Your task to perform on an android device: turn off location history Image 0: 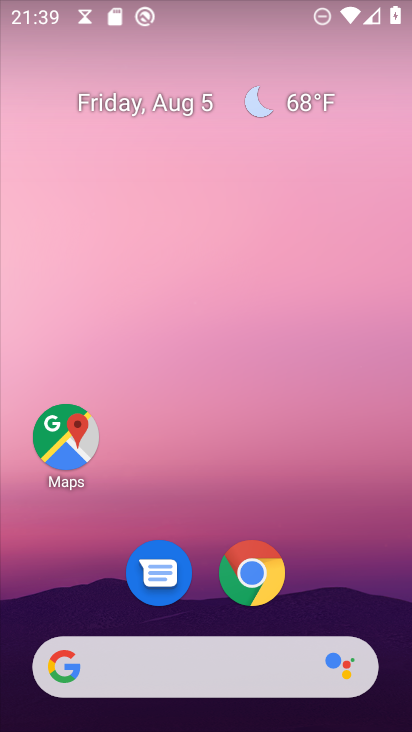
Step 0: drag from (138, 675) to (207, 128)
Your task to perform on an android device: turn off location history Image 1: 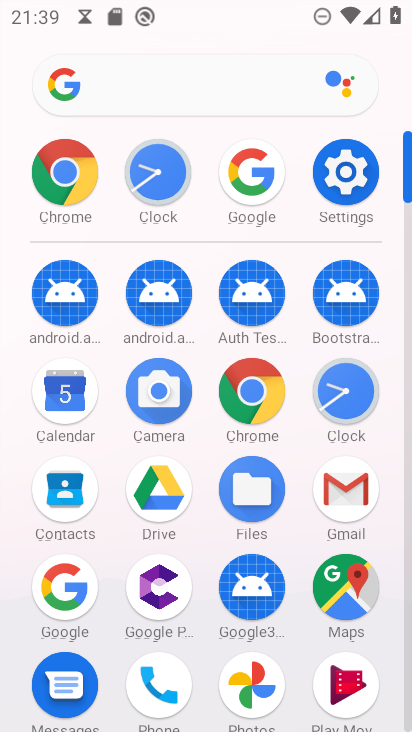
Step 1: click (346, 170)
Your task to perform on an android device: turn off location history Image 2: 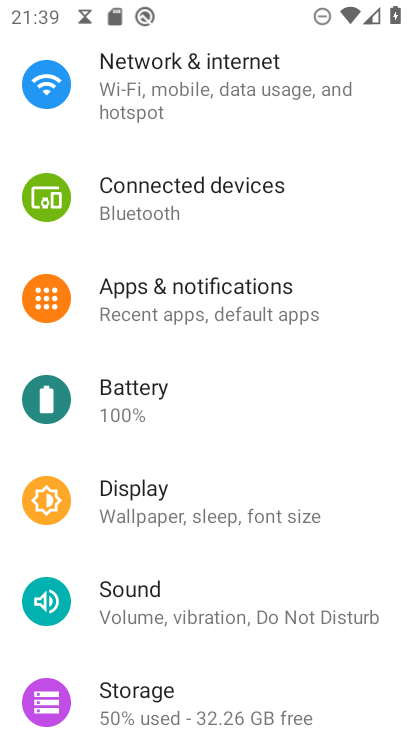
Step 2: drag from (228, 437) to (308, 313)
Your task to perform on an android device: turn off location history Image 3: 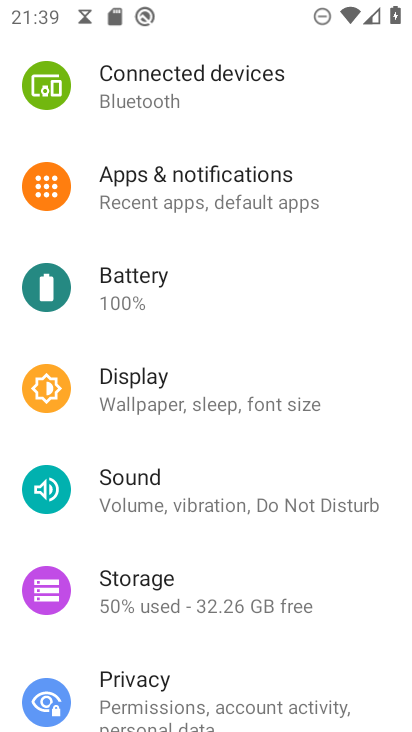
Step 3: drag from (217, 457) to (292, 352)
Your task to perform on an android device: turn off location history Image 4: 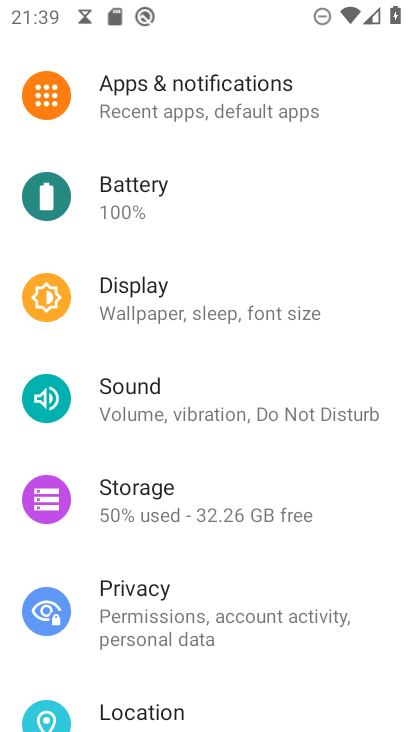
Step 4: drag from (205, 548) to (272, 400)
Your task to perform on an android device: turn off location history Image 5: 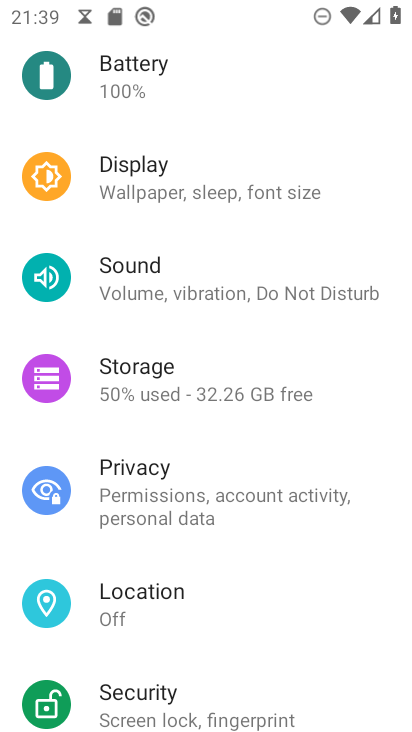
Step 5: click (175, 592)
Your task to perform on an android device: turn off location history Image 6: 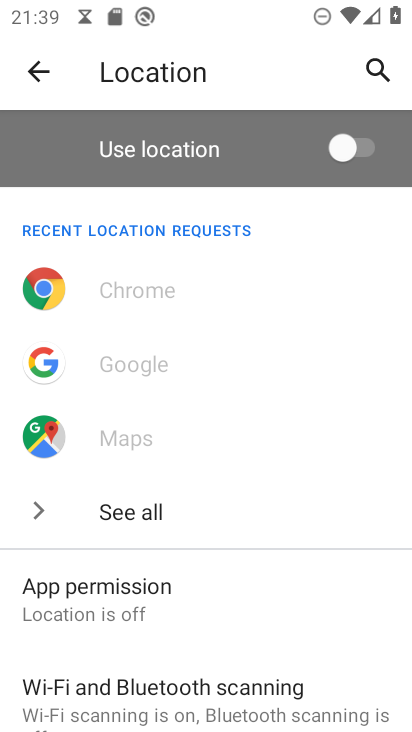
Step 6: drag from (156, 615) to (224, 335)
Your task to perform on an android device: turn off location history Image 7: 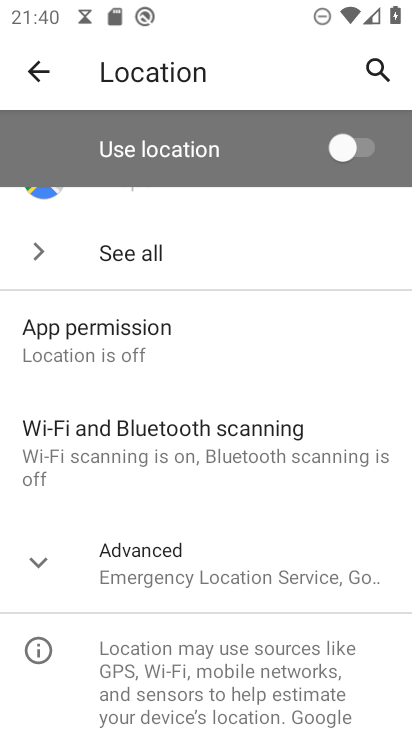
Step 7: click (173, 571)
Your task to perform on an android device: turn off location history Image 8: 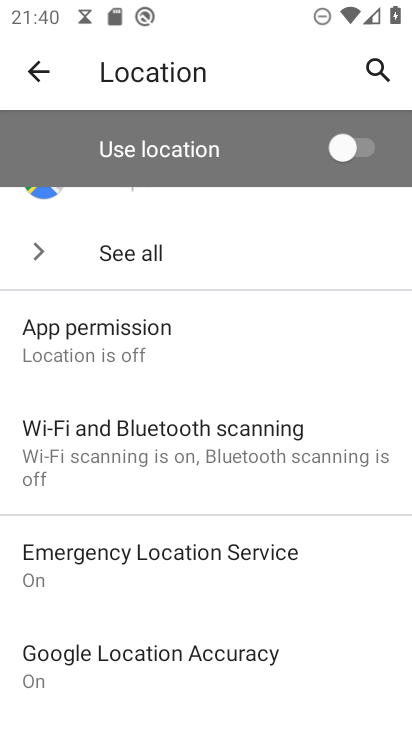
Step 8: task complete